Your task to perform on an android device: move an email to a new category in the gmail app Image 0: 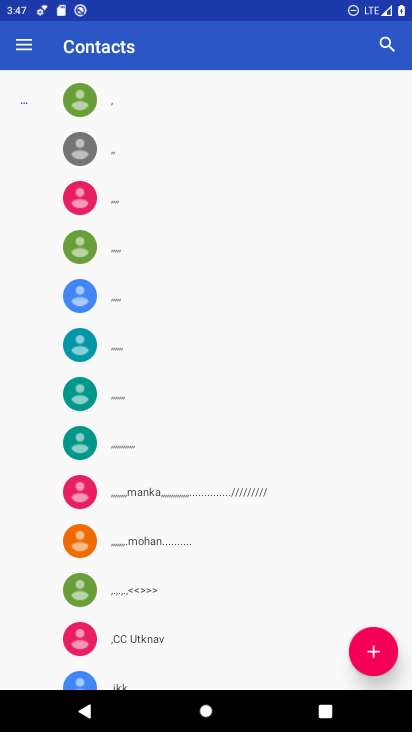
Step 0: press home button
Your task to perform on an android device: move an email to a new category in the gmail app Image 1: 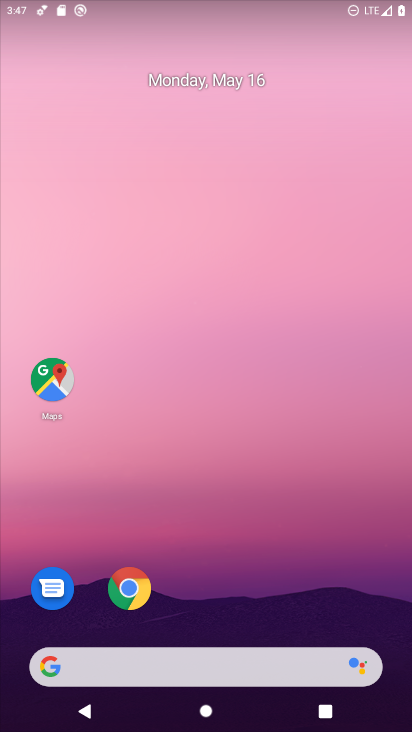
Step 1: drag from (266, 635) to (274, 7)
Your task to perform on an android device: move an email to a new category in the gmail app Image 2: 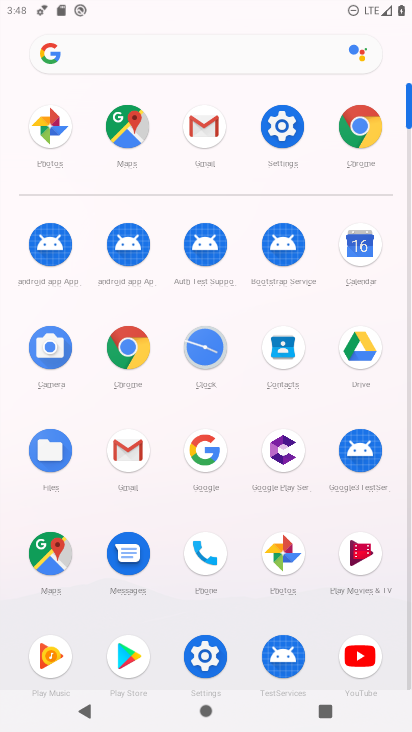
Step 2: click (205, 131)
Your task to perform on an android device: move an email to a new category in the gmail app Image 3: 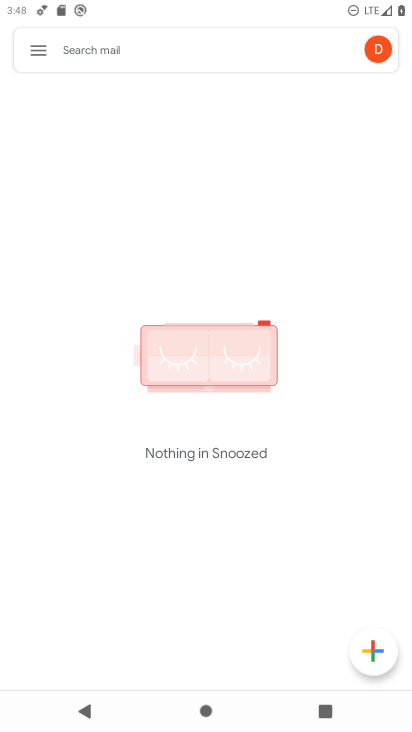
Step 3: click (41, 53)
Your task to perform on an android device: move an email to a new category in the gmail app Image 4: 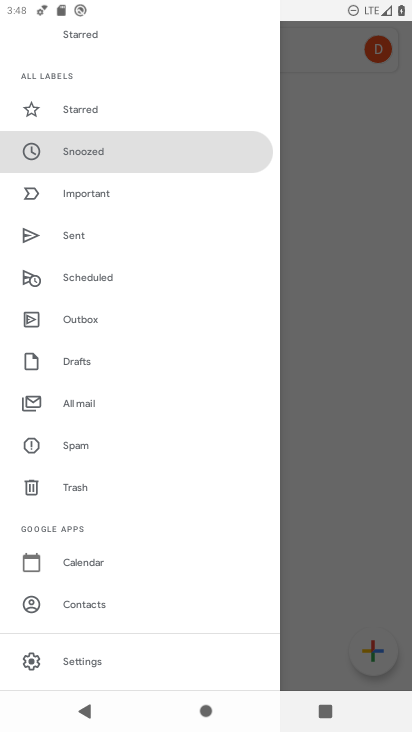
Step 4: click (90, 403)
Your task to perform on an android device: move an email to a new category in the gmail app Image 5: 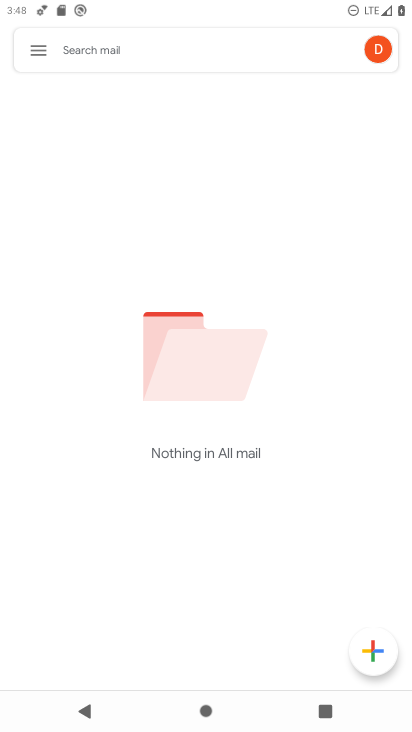
Step 5: task complete